Your task to perform on an android device: Open calendar and show me the first week of next month Image 0: 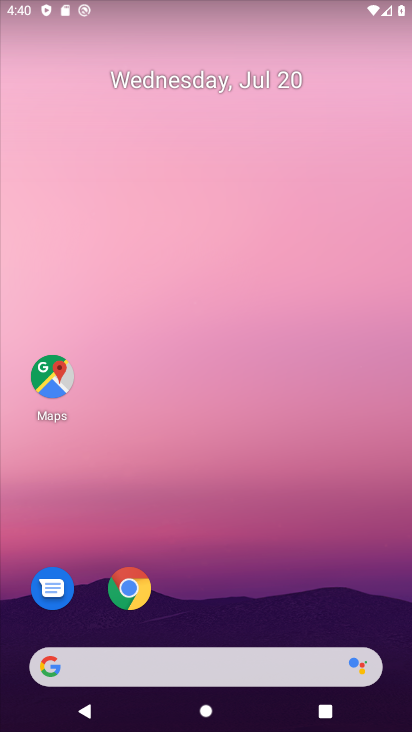
Step 0: drag from (368, 590) to (288, 2)
Your task to perform on an android device: Open calendar and show me the first week of next month Image 1: 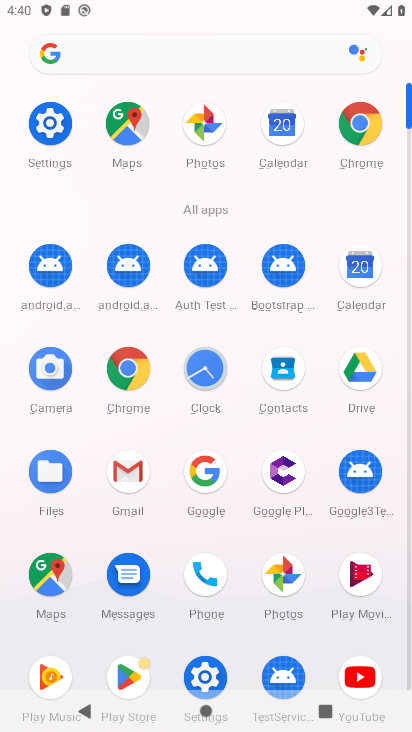
Step 1: click (367, 284)
Your task to perform on an android device: Open calendar and show me the first week of next month Image 2: 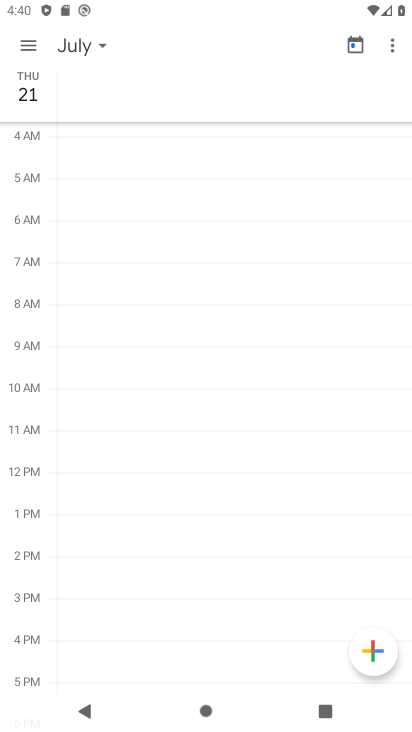
Step 2: click (28, 48)
Your task to perform on an android device: Open calendar and show me the first week of next month Image 3: 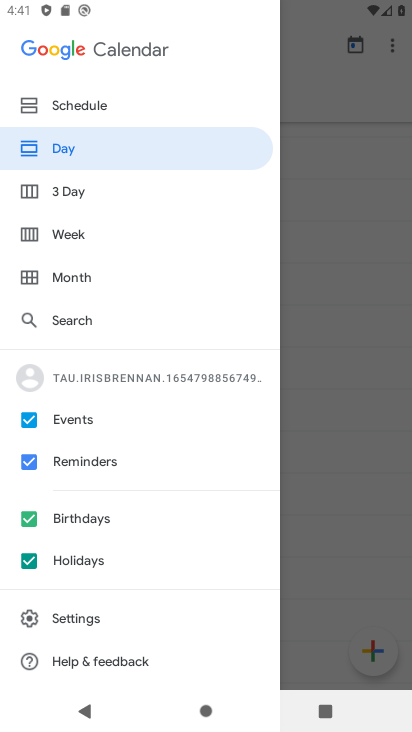
Step 3: click (82, 234)
Your task to perform on an android device: Open calendar and show me the first week of next month Image 4: 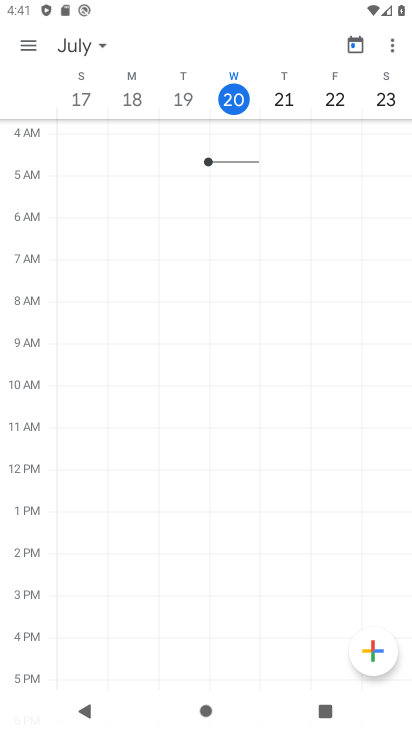
Step 4: click (92, 49)
Your task to perform on an android device: Open calendar and show me the first week of next month Image 5: 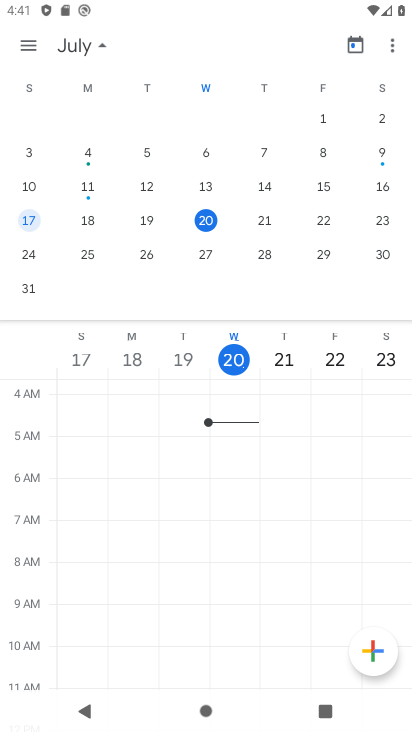
Step 5: drag from (361, 219) to (24, 235)
Your task to perform on an android device: Open calendar and show me the first week of next month Image 6: 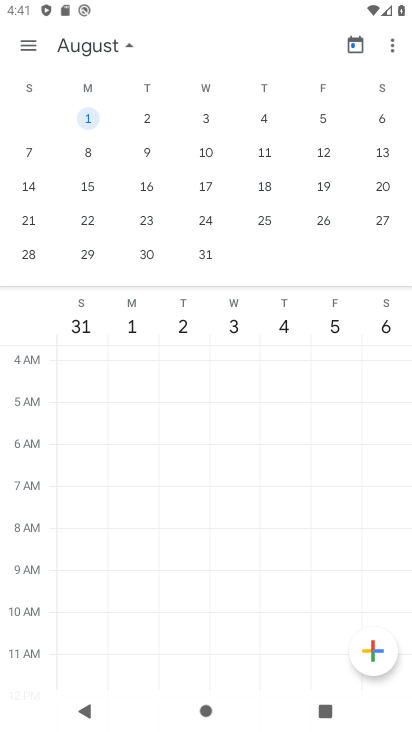
Step 6: click (207, 122)
Your task to perform on an android device: Open calendar and show me the first week of next month Image 7: 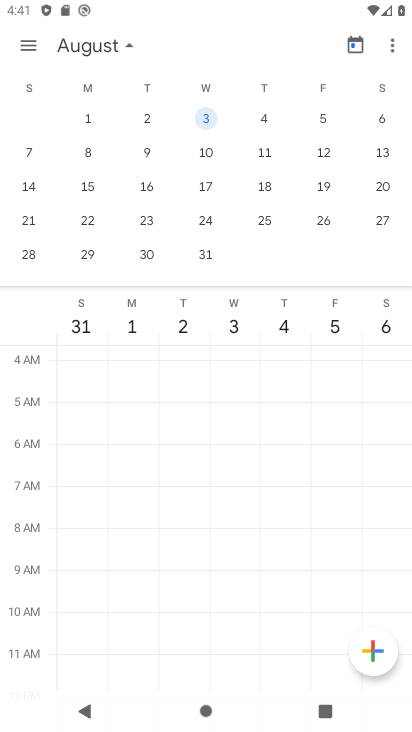
Step 7: task complete